Your task to perform on an android device: Open eBay Image 0: 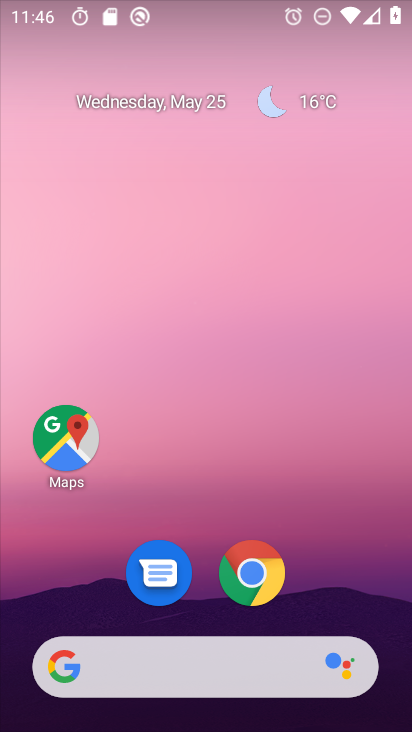
Step 0: click (255, 570)
Your task to perform on an android device: Open eBay Image 1: 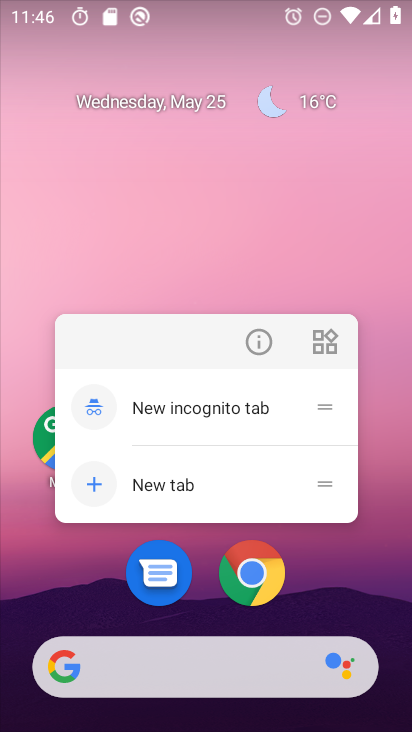
Step 1: click (267, 575)
Your task to perform on an android device: Open eBay Image 2: 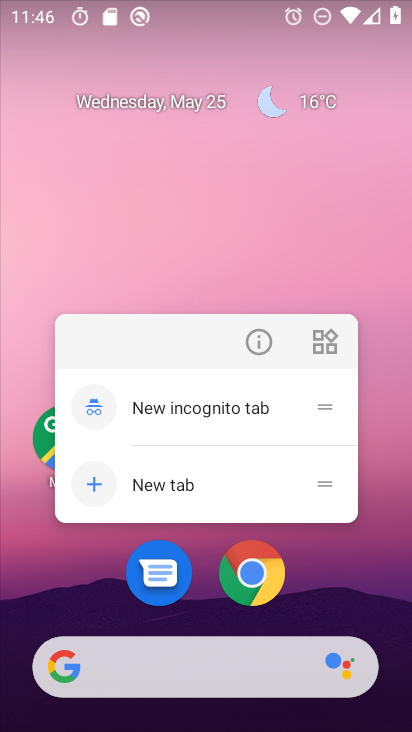
Step 2: click (252, 581)
Your task to perform on an android device: Open eBay Image 3: 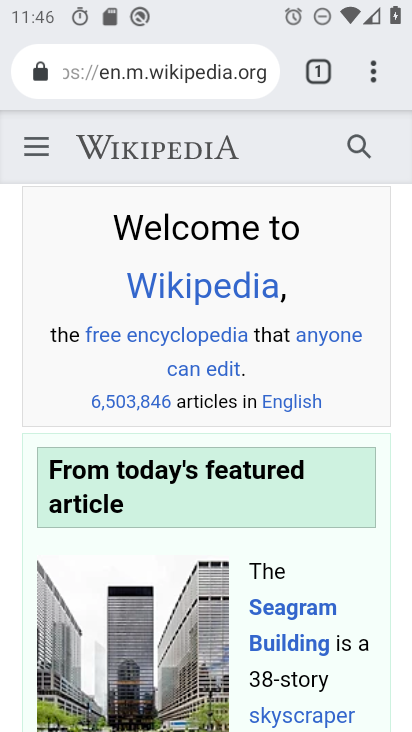
Step 3: click (108, 75)
Your task to perform on an android device: Open eBay Image 4: 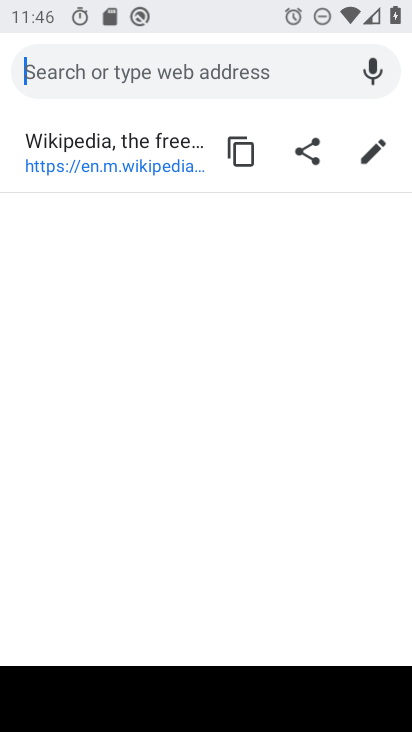
Step 4: type "ebay"
Your task to perform on an android device: Open eBay Image 5: 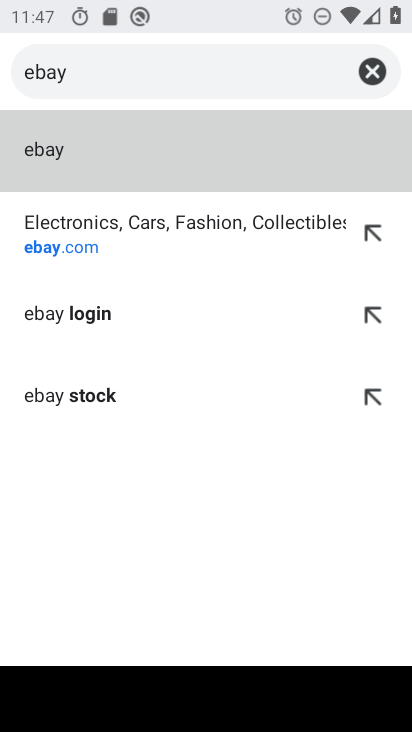
Step 5: click (32, 158)
Your task to perform on an android device: Open eBay Image 6: 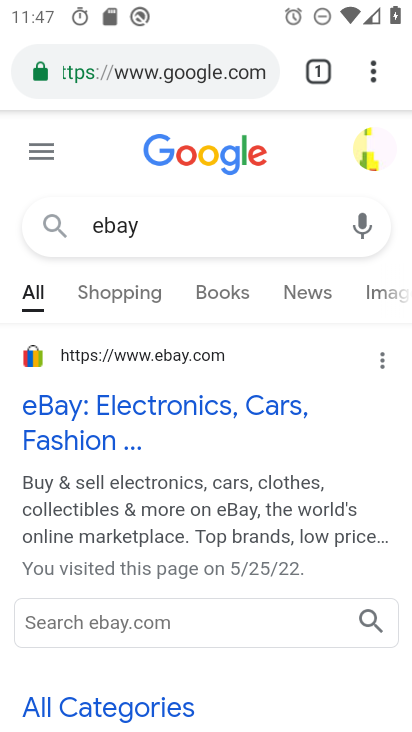
Step 6: click (45, 411)
Your task to perform on an android device: Open eBay Image 7: 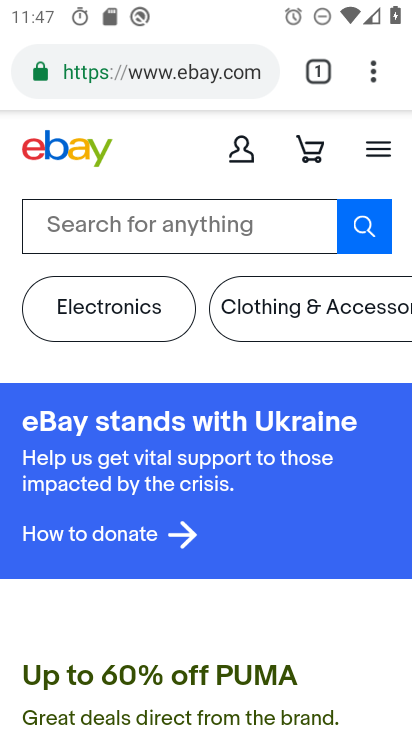
Step 7: task complete